Your task to perform on an android device: turn on sleep mode Image 0: 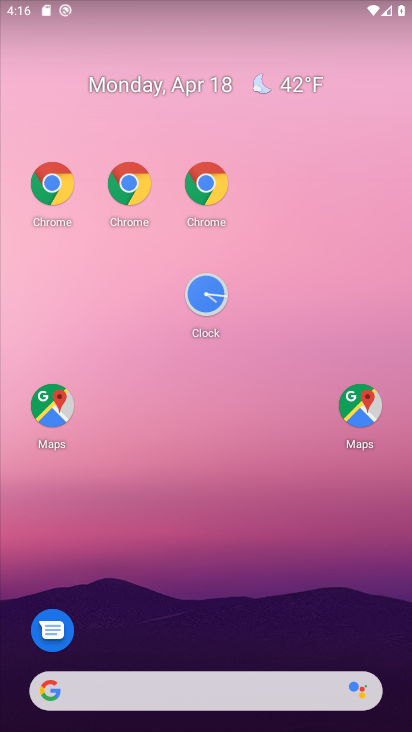
Step 0: click (220, 7)
Your task to perform on an android device: turn on sleep mode Image 1: 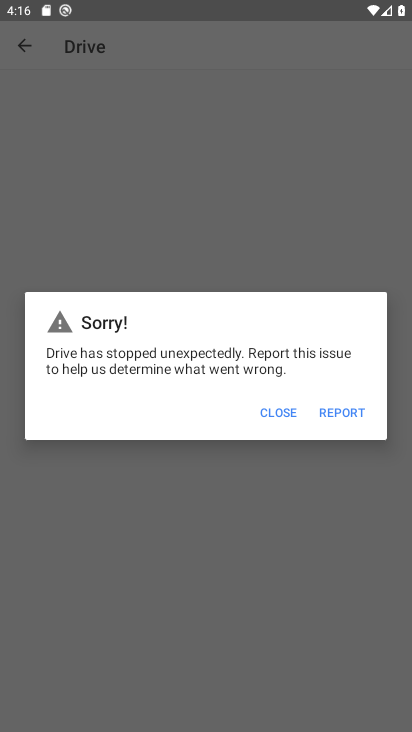
Step 1: click (267, 410)
Your task to perform on an android device: turn on sleep mode Image 2: 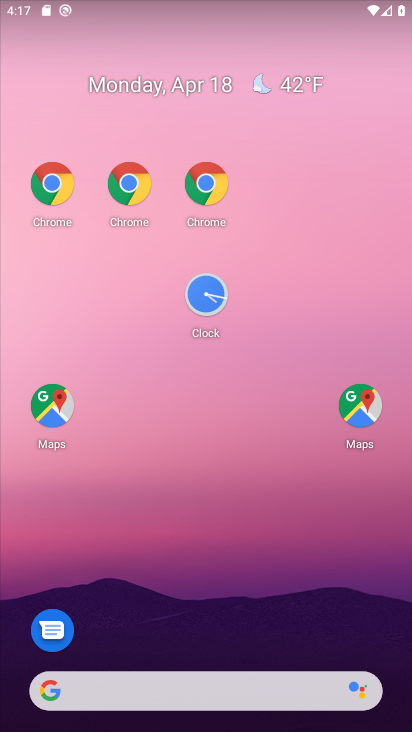
Step 2: task complete